Your task to perform on an android device: find which apps use the phone's location Image 0: 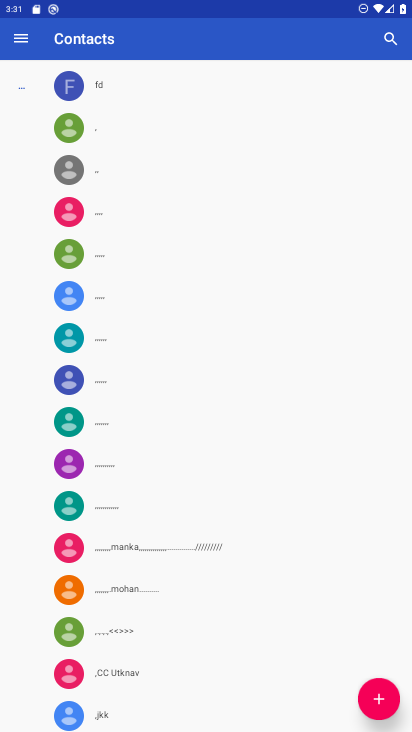
Step 0: press home button
Your task to perform on an android device: find which apps use the phone's location Image 1: 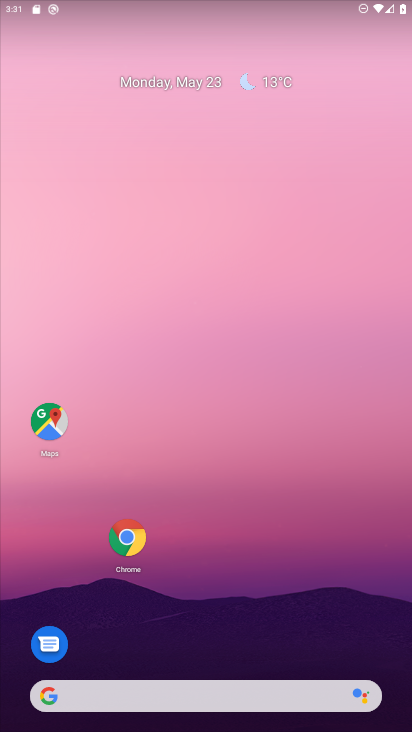
Step 1: drag from (242, 622) to (265, 143)
Your task to perform on an android device: find which apps use the phone's location Image 2: 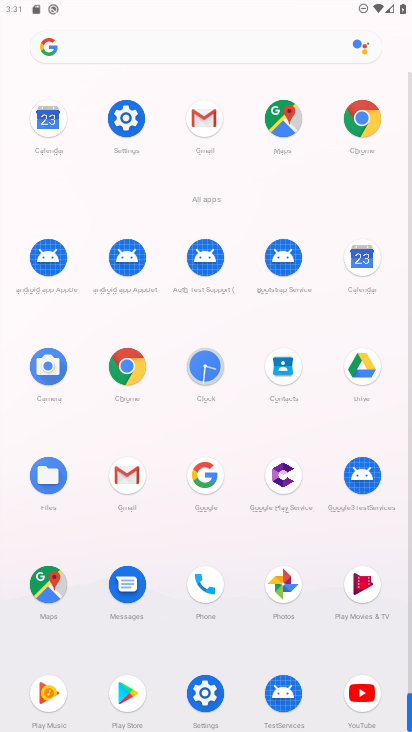
Step 2: click (137, 128)
Your task to perform on an android device: find which apps use the phone's location Image 3: 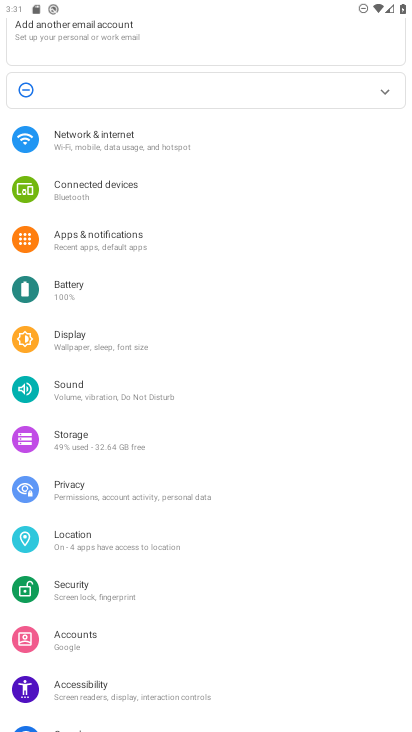
Step 3: click (142, 547)
Your task to perform on an android device: find which apps use the phone's location Image 4: 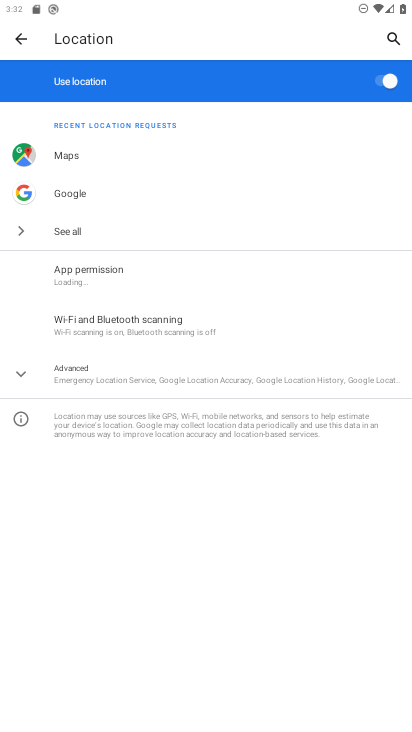
Step 4: click (108, 272)
Your task to perform on an android device: find which apps use the phone's location Image 5: 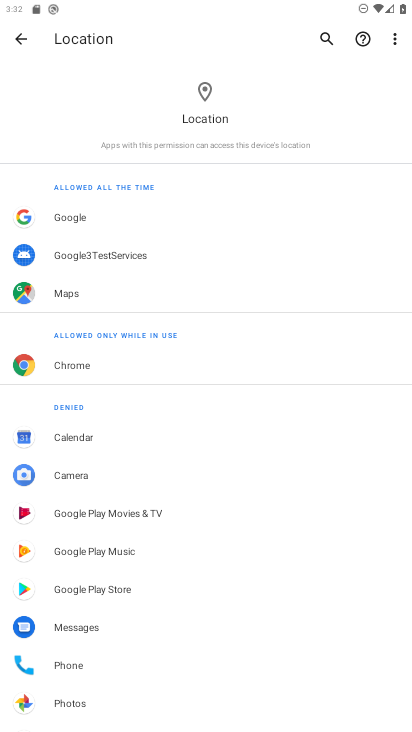
Step 5: task complete